Your task to perform on an android device: Open ESPN.com Image 0: 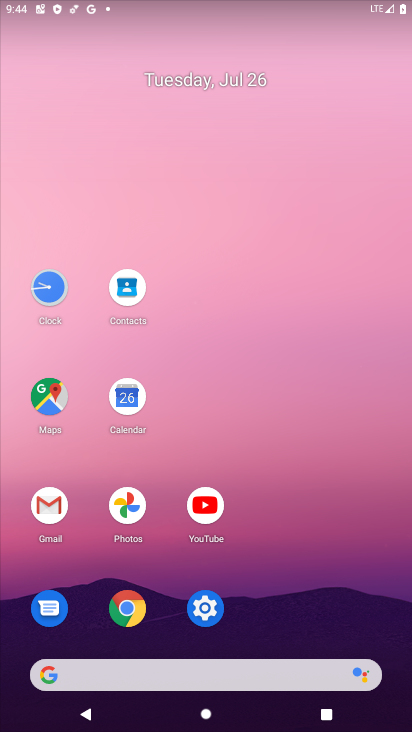
Step 0: click (119, 611)
Your task to perform on an android device: Open ESPN.com Image 1: 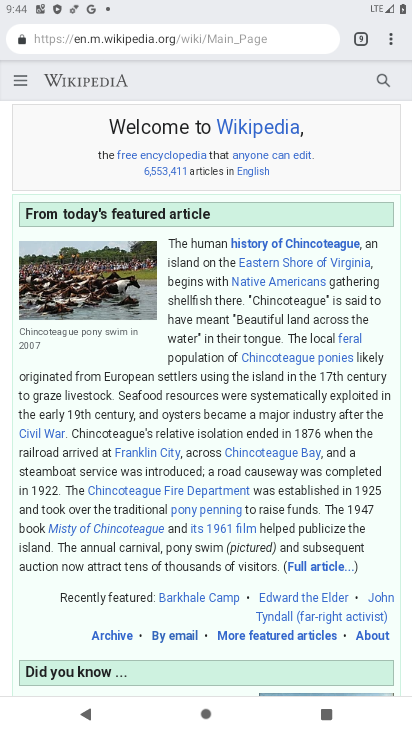
Step 1: click (390, 37)
Your task to perform on an android device: Open ESPN.com Image 2: 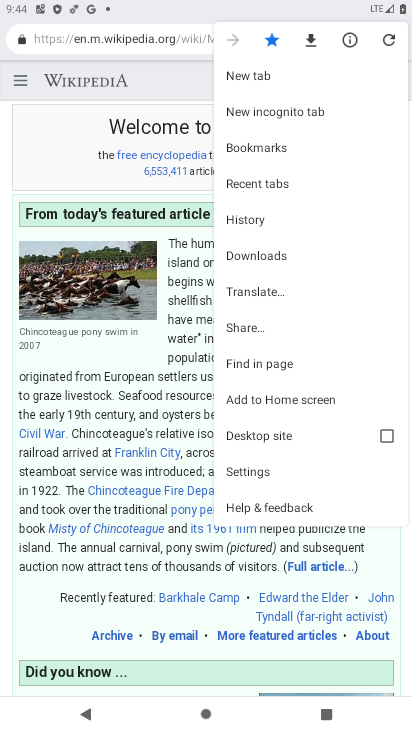
Step 2: click (251, 76)
Your task to perform on an android device: Open ESPN.com Image 3: 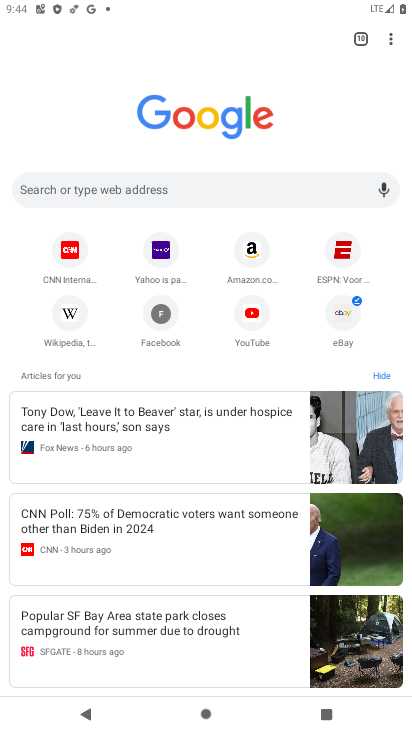
Step 3: click (345, 247)
Your task to perform on an android device: Open ESPN.com Image 4: 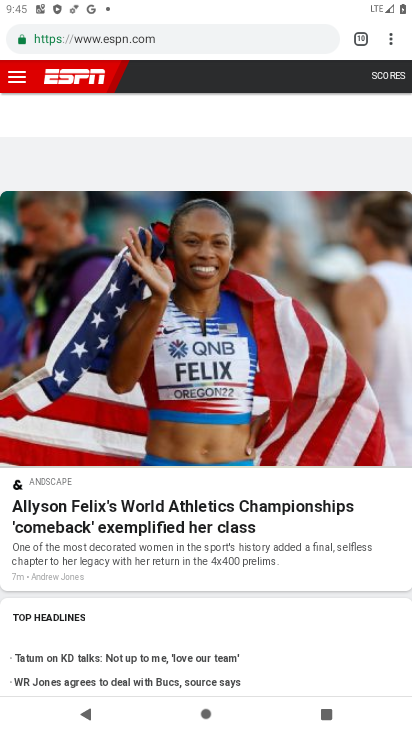
Step 4: task complete